Your task to perform on an android device: read, delete, or share a saved page in the chrome app Image 0: 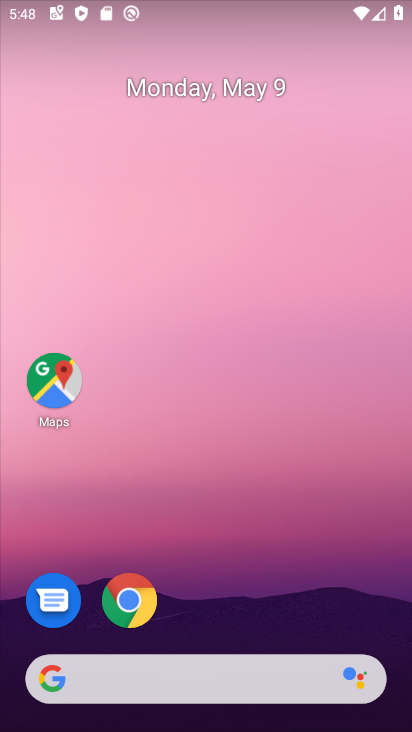
Step 0: drag from (205, 589) to (260, 7)
Your task to perform on an android device: read, delete, or share a saved page in the chrome app Image 1: 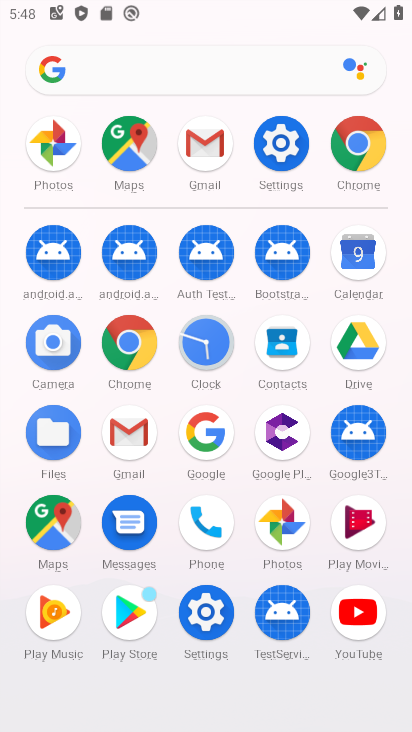
Step 1: click (363, 163)
Your task to perform on an android device: read, delete, or share a saved page in the chrome app Image 2: 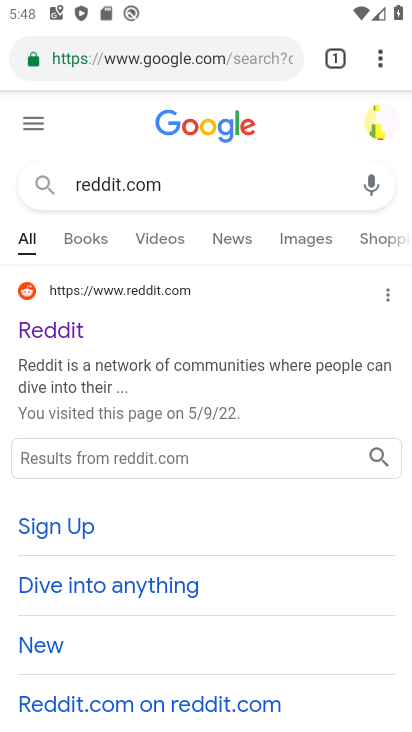
Step 2: click (370, 56)
Your task to perform on an android device: read, delete, or share a saved page in the chrome app Image 3: 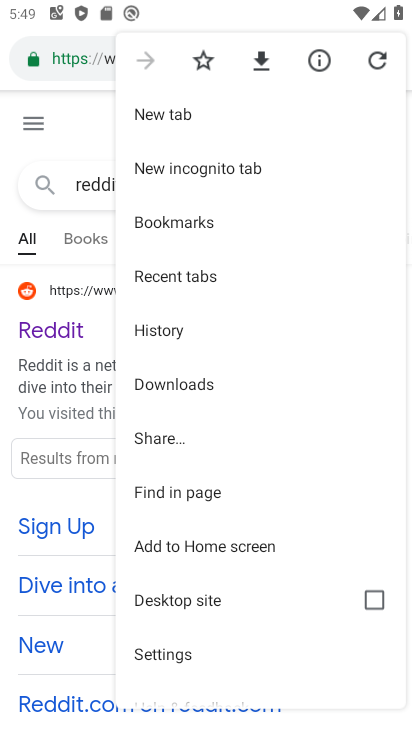
Step 3: click (182, 392)
Your task to perform on an android device: read, delete, or share a saved page in the chrome app Image 4: 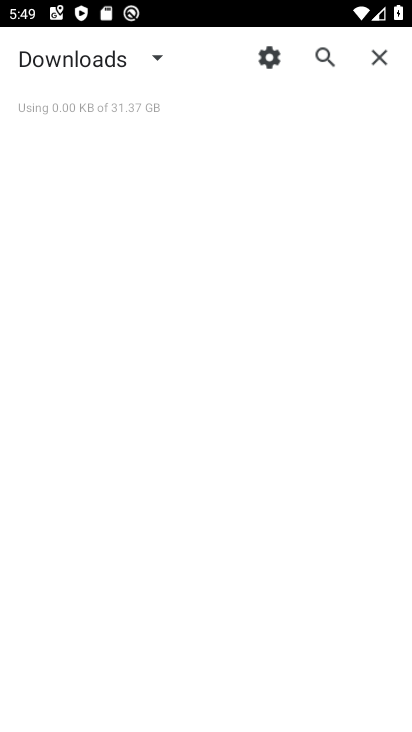
Step 4: task complete